Your task to perform on an android device: Open calendar and show me the second week of next month Image 0: 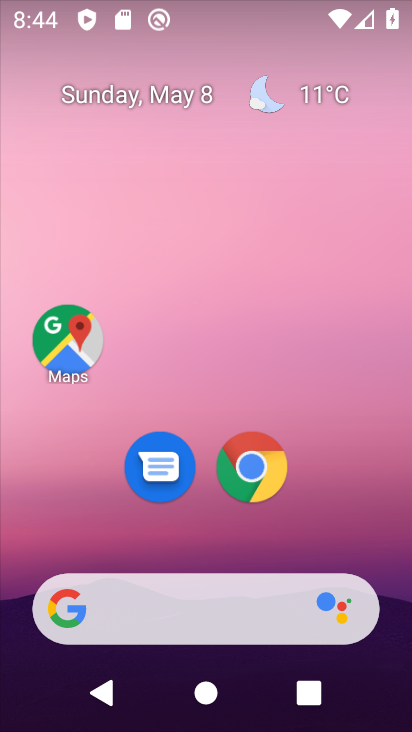
Step 0: drag from (215, 491) to (263, 27)
Your task to perform on an android device: Open calendar and show me the second week of next month Image 1: 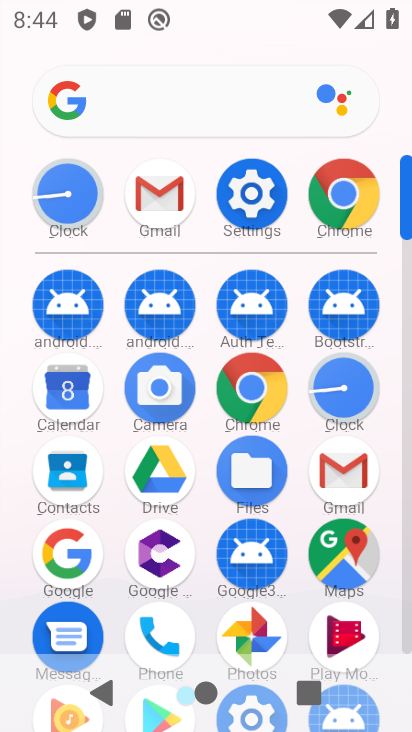
Step 1: click (74, 412)
Your task to perform on an android device: Open calendar and show me the second week of next month Image 2: 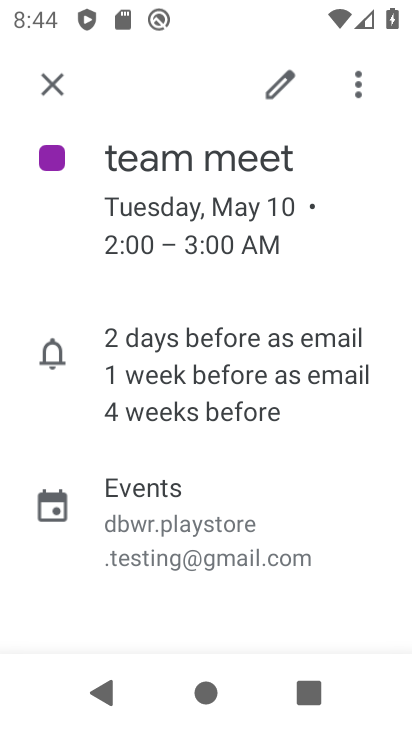
Step 2: click (34, 81)
Your task to perform on an android device: Open calendar and show me the second week of next month Image 3: 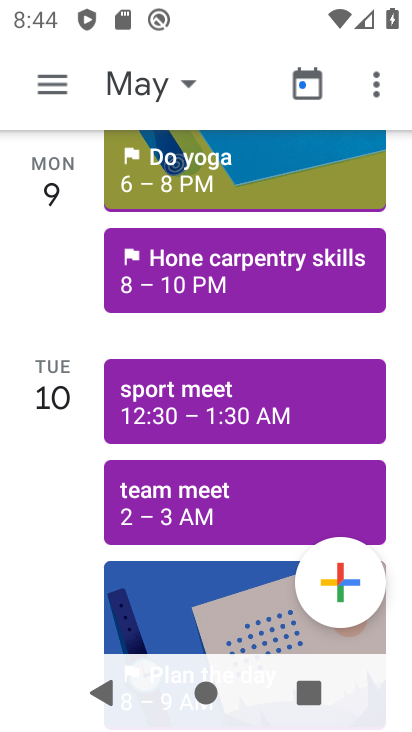
Step 3: click (164, 83)
Your task to perform on an android device: Open calendar and show me the second week of next month Image 4: 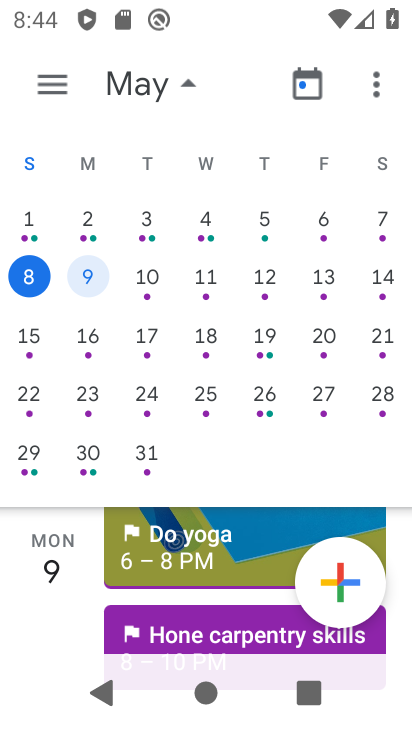
Step 4: drag from (377, 293) to (13, 289)
Your task to perform on an android device: Open calendar and show me the second week of next month Image 5: 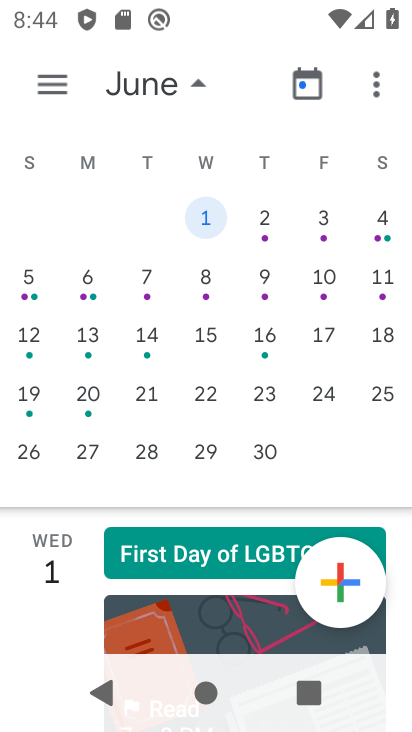
Step 5: click (78, 283)
Your task to perform on an android device: Open calendar and show me the second week of next month Image 6: 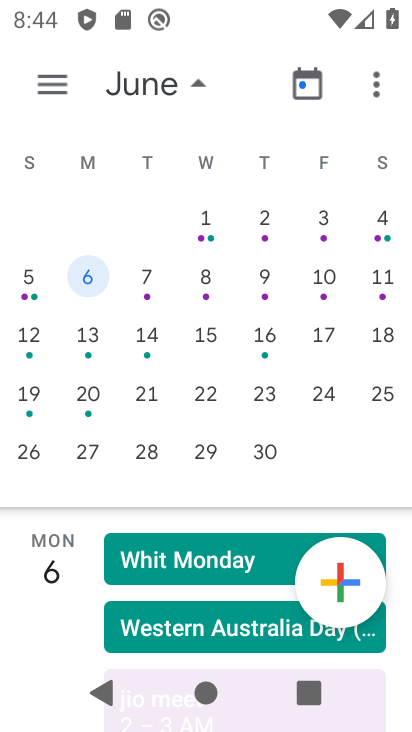
Step 6: task complete